Your task to perform on an android device: Open CNN.com Image 0: 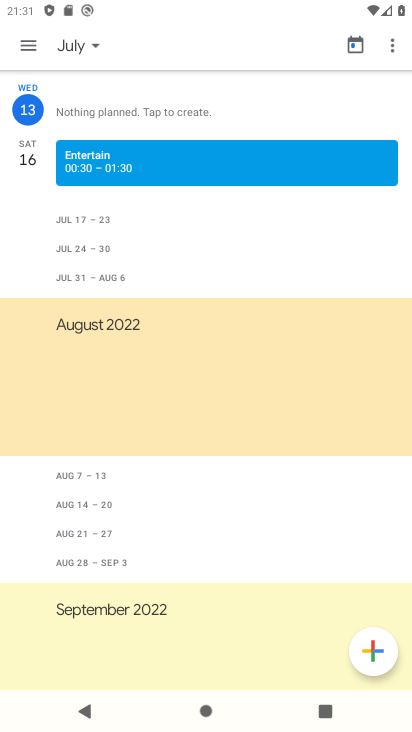
Step 0: press back button
Your task to perform on an android device: Open CNN.com Image 1: 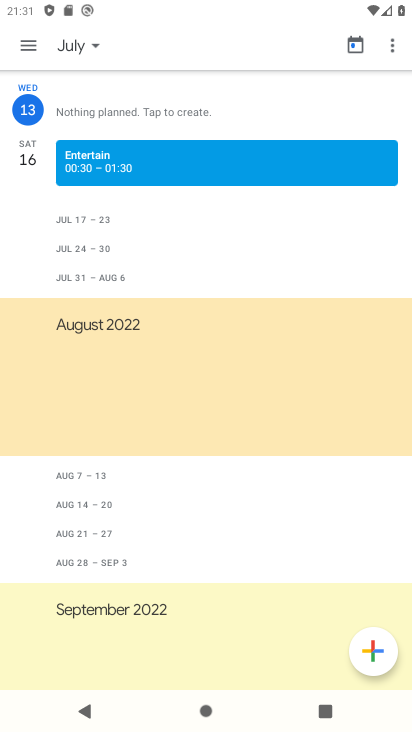
Step 1: press back button
Your task to perform on an android device: Open CNN.com Image 2: 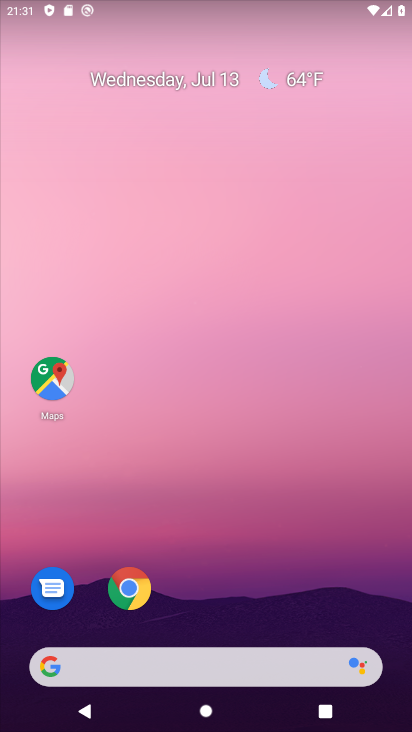
Step 2: press back button
Your task to perform on an android device: Open CNN.com Image 3: 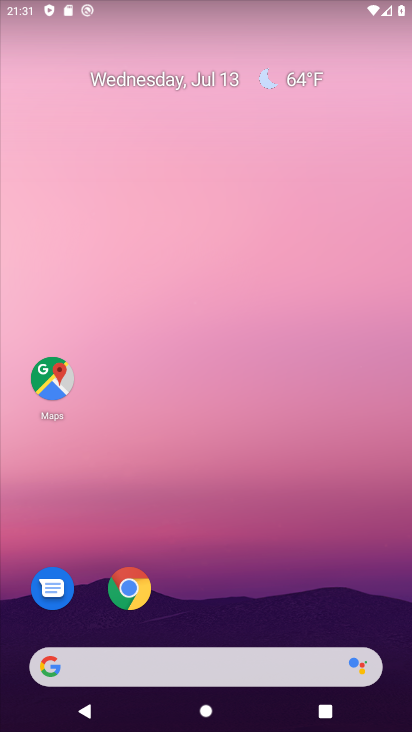
Step 3: click (134, 590)
Your task to perform on an android device: Open CNN.com Image 4: 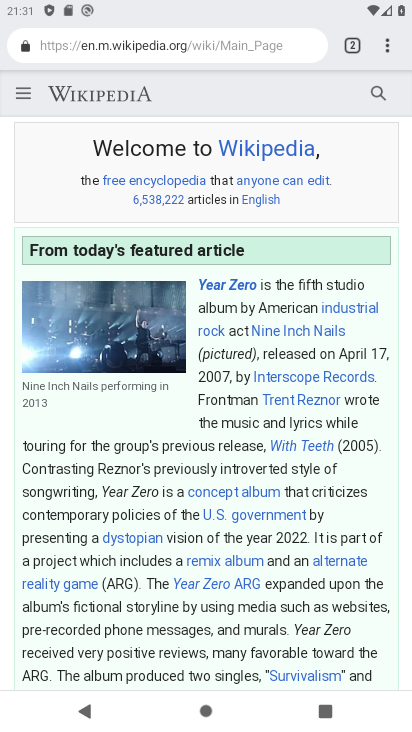
Step 4: click (355, 41)
Your task to perform on an android device: Open CNN.com Image 5: 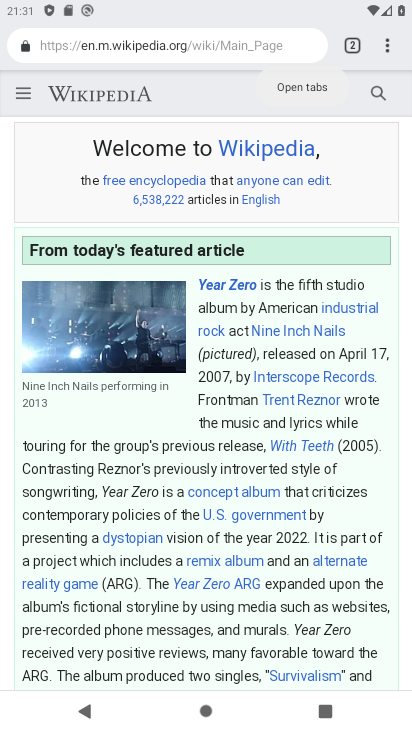
Step 5: click (346, 43)
Your task to perform on an android device: Open CNN.com Image 6: 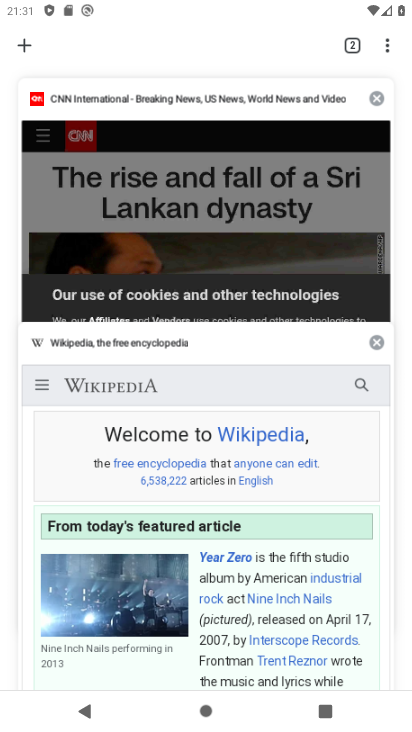
Step 6: click (194, 117)
Your task to perform on an android device: Open CNN.com Image 7: 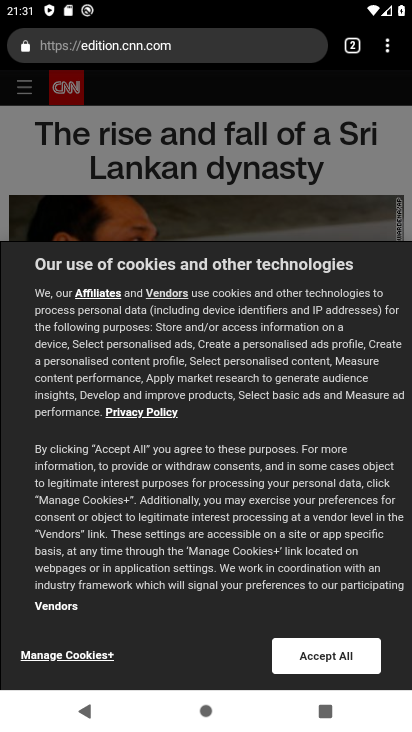
Step 7: task complete